Your task to perform on an android device: Open wifi settings Image 0: 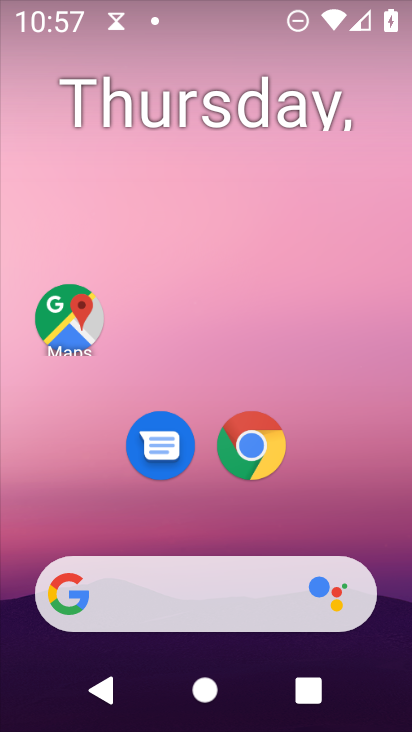
Step 0: drag from (217, 727) to (211, 43)
Your task to perform on an android device: Open wifi settings Image 1: 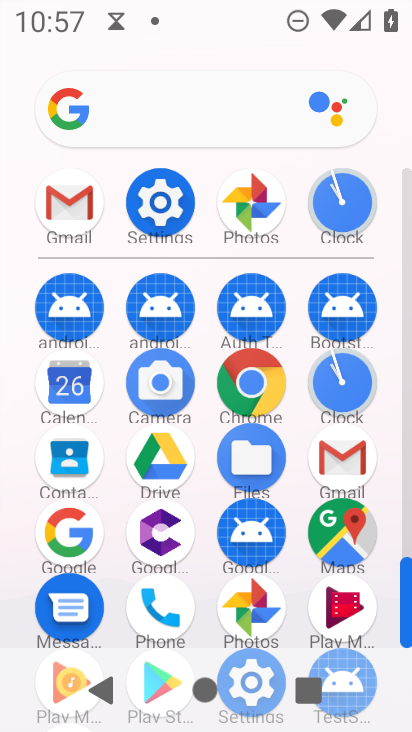
Step 1: click (170, 205)
Your task to perform on an android device: Open wifi settings Image 2: 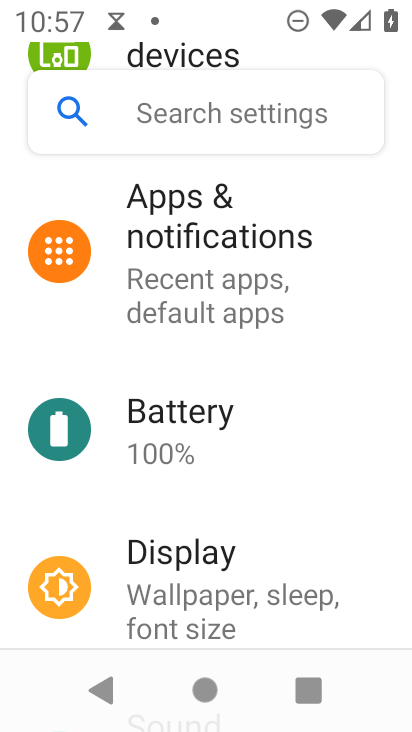
Step 2: drag from (309, 179) to (295, 487)
Your task to perform on an android device: Open wifi settings Image 3: 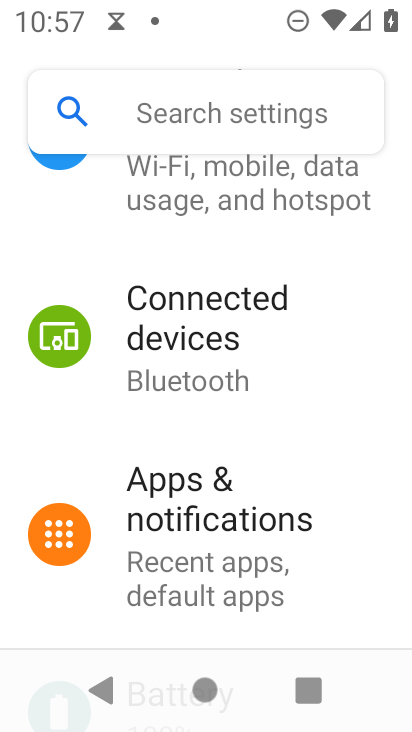
Step 3: drag from (321, 166) to (355, 555)
Your task to perform on an android device: Open wifi settings Image 4: 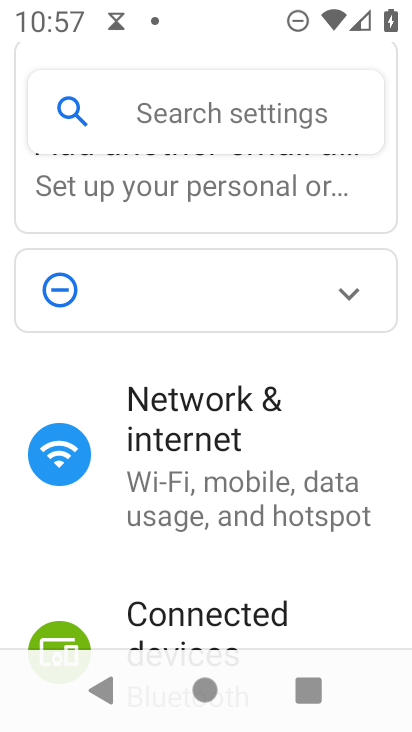
Step 4: click (168, 420)
Your task to perform on an android device: Open wifi settings Image 5: 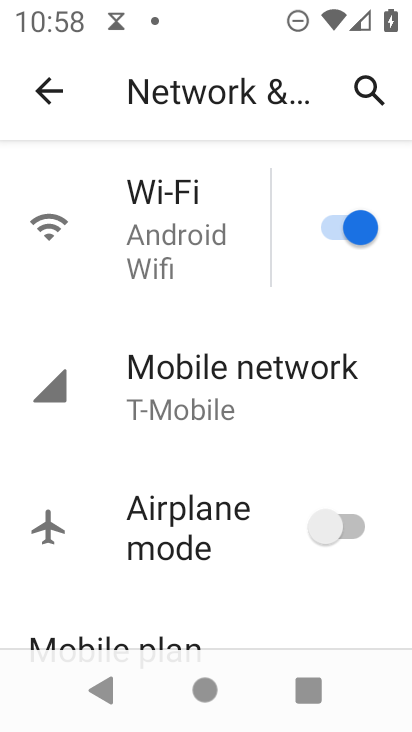
Step 5: click (161, 218)
Your task to perform on an android device: Open wifi settings Image 6: 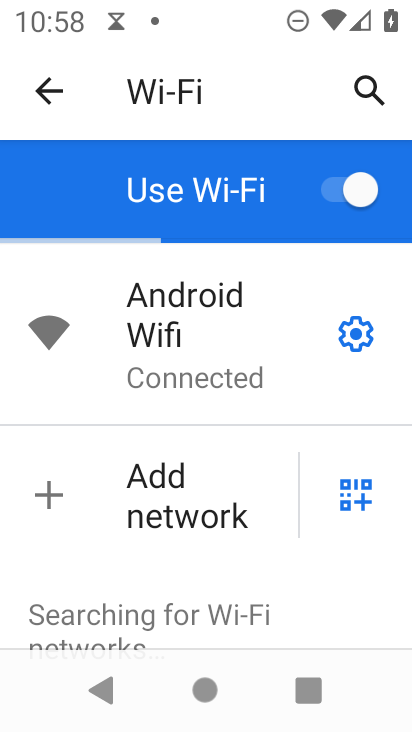
Step 6: task complete